Your task to perform on an android device: turn off airplane mode Image 0: 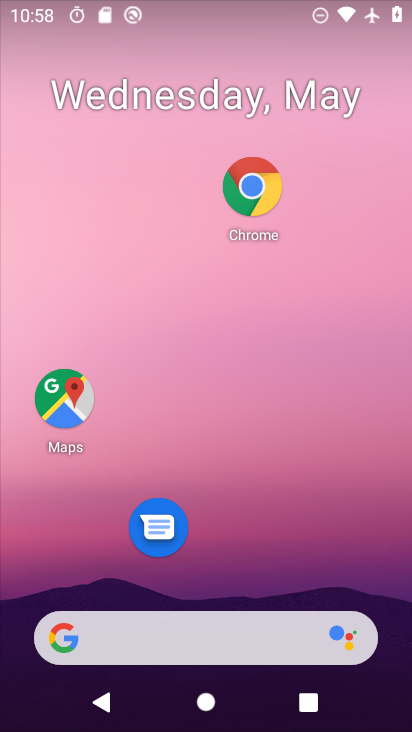
Step 0: drag from (203, 583) to (268, 219)
Your task to perform on an android device: turn off airplane mode Image 1: 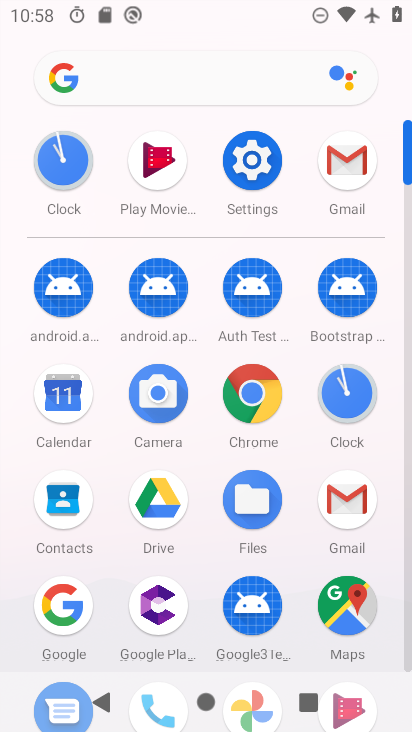
Step 1: click (263, 172)
Your task to perform on an android device: turn off airplane mode Image 2: 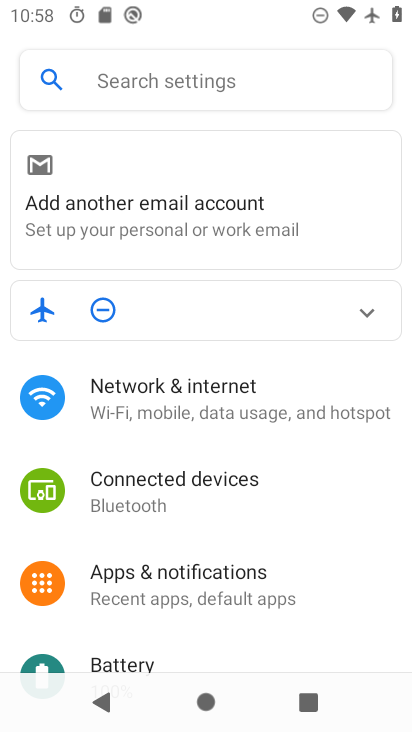
Step 2: click (180, 401)
Your task to perform on an android device: turn off airplane mode Image 3: 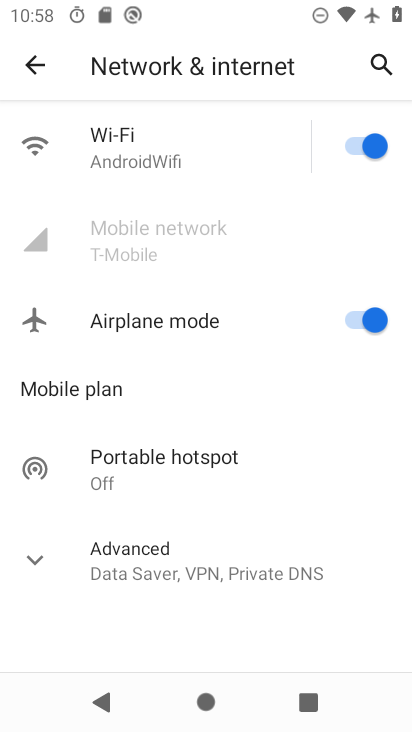
Step 3: click (355, 314)
Your task to perform on an android device: turn off airplane mode Image 4: 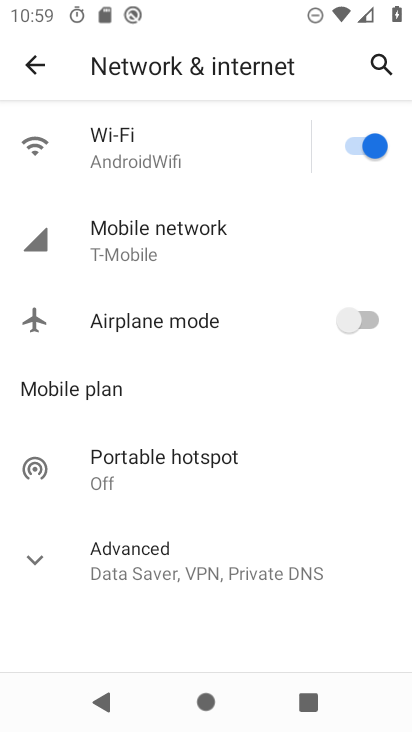
Step 4: task complete